Your task to perform on an android device: turn on improve location accuracy Image 0: 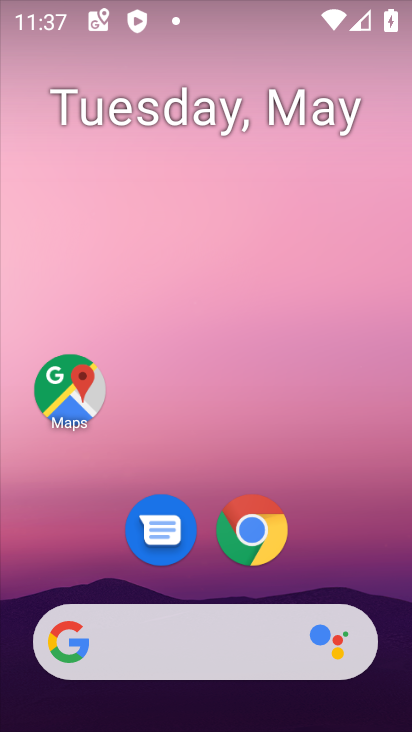
Step 0: drag from (203, 596) to (197, 284)
Your task to perform on an android device: turn on improve location accuracy Image 1: 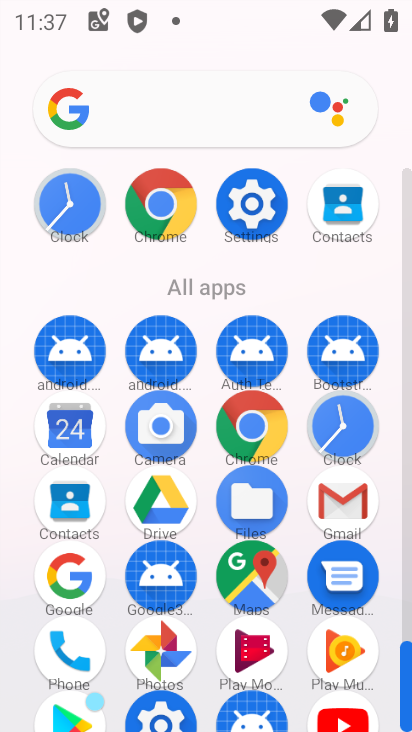
Step 1: click (252, 207)
Your task to perform on an android device: turn on improve location accuracy Image 2: 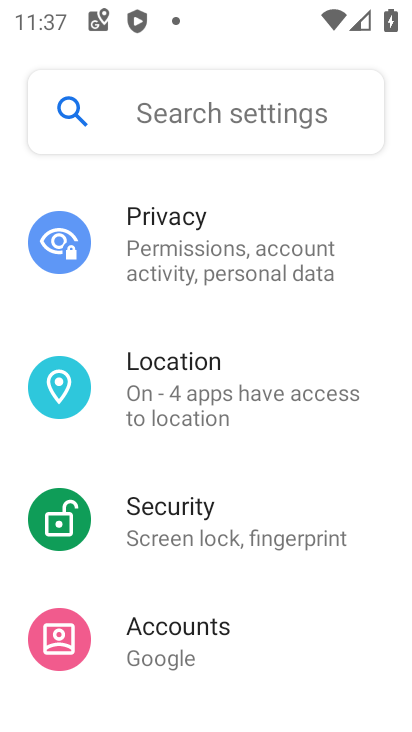
Step 2: click (188, 405)
Your task to perform on an android device: turn on improve location accuracy Image 3: 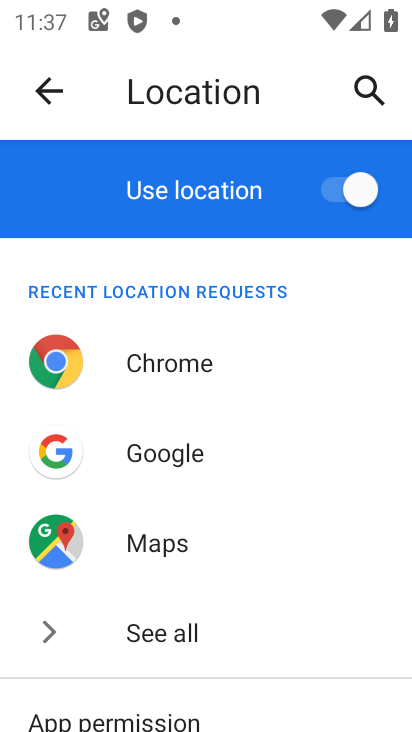
Step 3: drag from (228, 545) to (195, 243)
Your task to perform on an android device: turn on improve location accuracy Image 4: 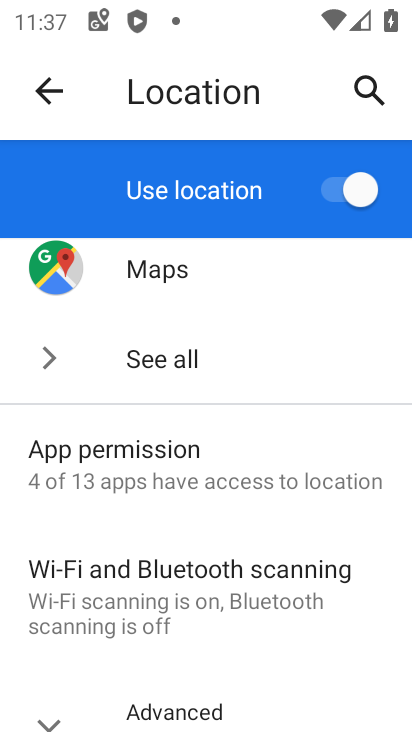
Step 4: drag from (165, 642) to (160, 234)
Your task to perform on an android device: turn on improve location accuracy Image 5: 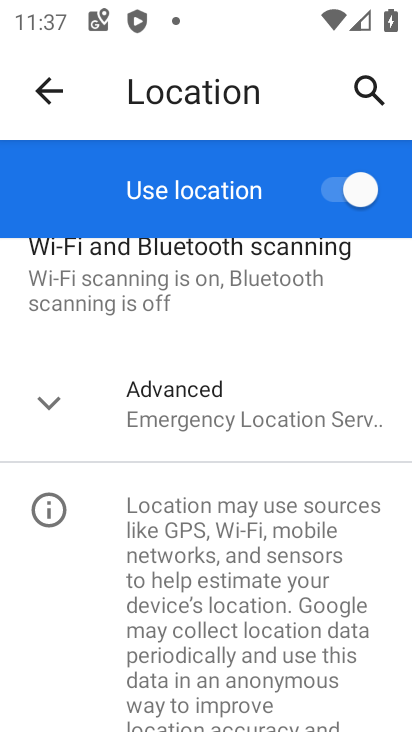
Step 5: click (43, 406)
Your task to perform on an android device: turn on improve location accuracy Image 6: 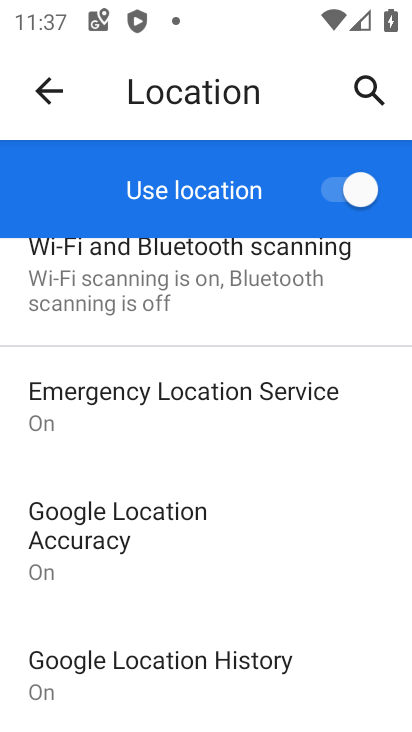
Step 6: drag from (175, 581) to (173, 498)
Your task to perform on an android device: turn on improve location accuracy Image 7: 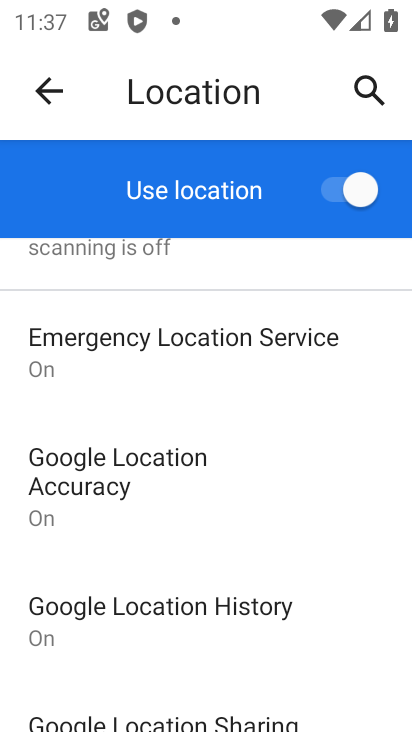
Step 7: click (71, 490)
Your task to perform on an android device: turn on improve location accuracy Image 8: 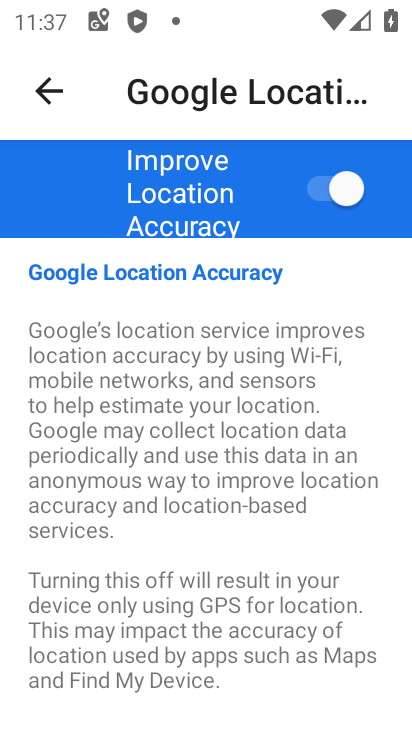
Step 8: task complete